Your task to perform on an android device: open a bookmark in the chrome app Image 0: 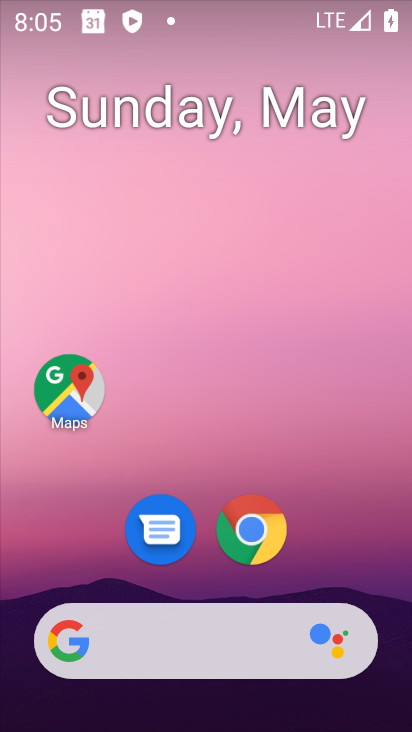
Step 0: click (235, 510)
Your task to perform on an android device: open a bookmark in the chrome app Image 1: 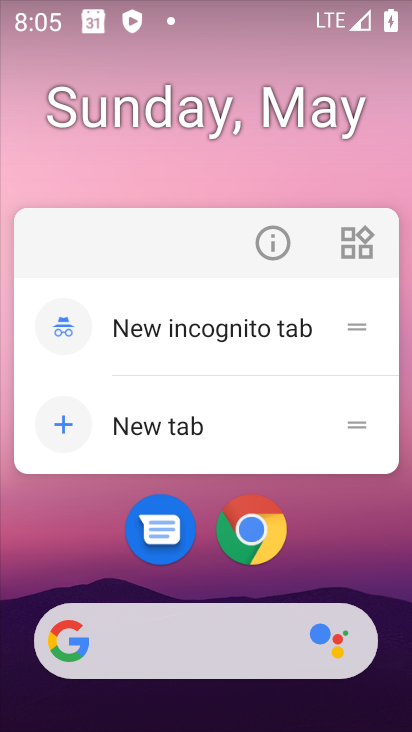
Step 1: click (239, 518)
Your task to perform on an android device: open a bookmark in the chrome app Image 2: 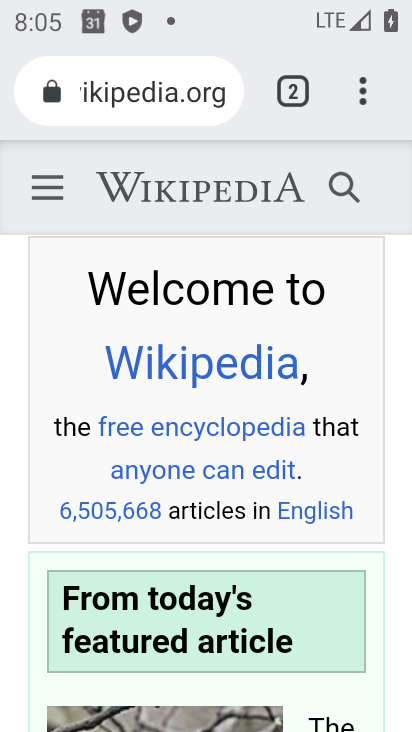
Step 2: drag from (367, 91) to (135, 343)
Your task to perform on an android device: open a bookmark in the chrome app Image 3: 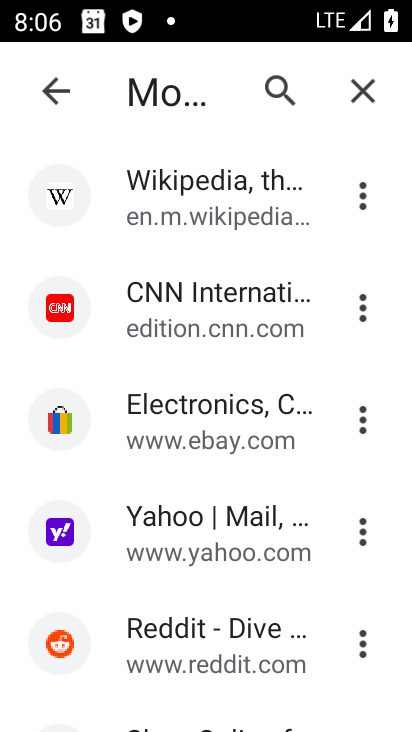
Step 3: click (207, 305)
Your task to perform on an android device: open a bookmark in the chrome app Image 4: 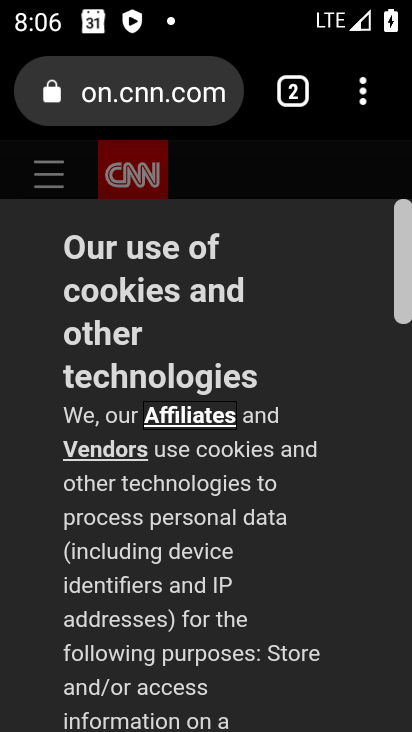
Step 4: task complete